Your task to perform on an android device: turn off location Image 0: 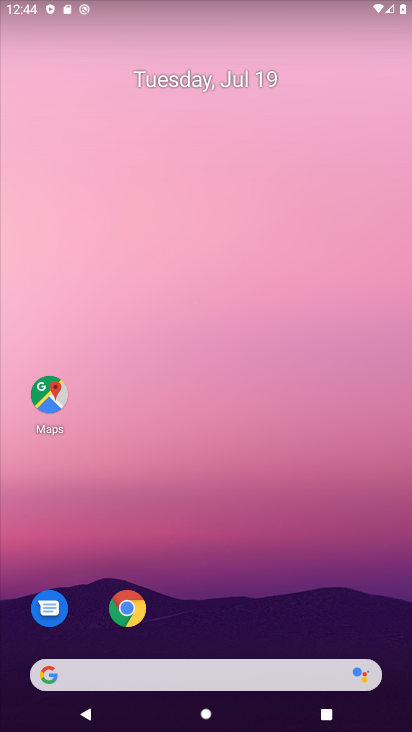
Step 0: drag from (290, 1) to (257, 8)
Your task to perform on an android device: turn off location Image 1: 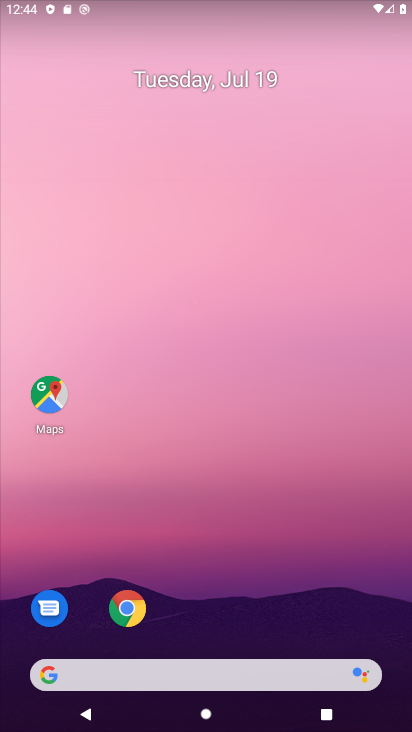
Step 1: drag from (270, 598) to (198, 3)
Your task to perform on an android device: turn off location Image 2: 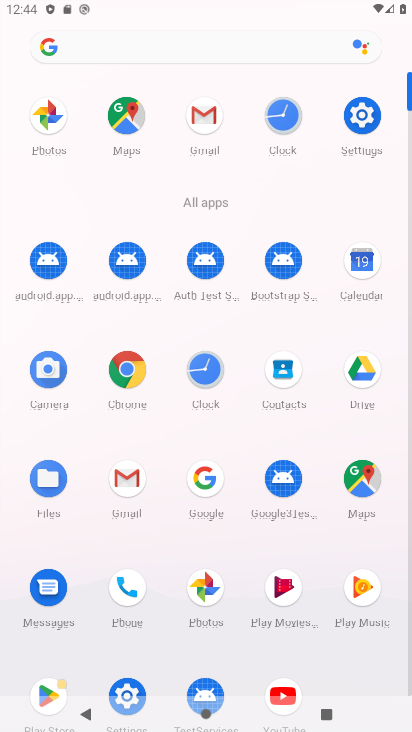
Step 2: click (356, 117)
Your task to perform on an android device: turn off location Image 3: 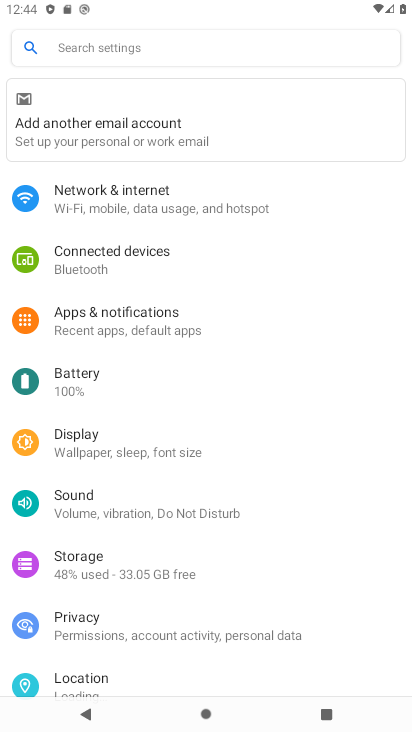
Step 3: drag from (154, 665) to (245, 177)
Your task to perform on an android device: turn off location Image 4: 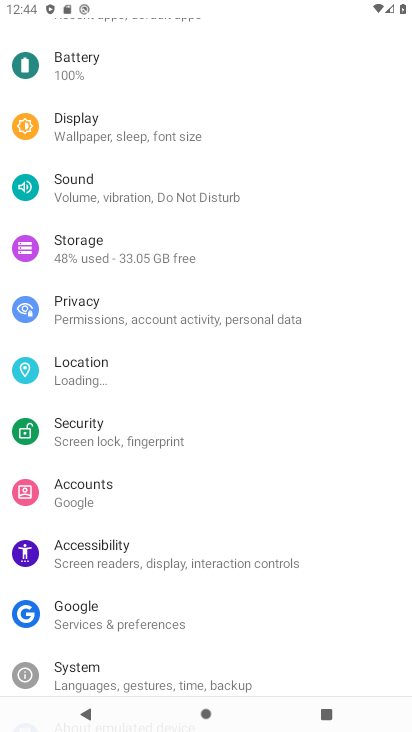
Step 4: click (77, 382)
Your task to perform on an android device: turn off location Image 5: 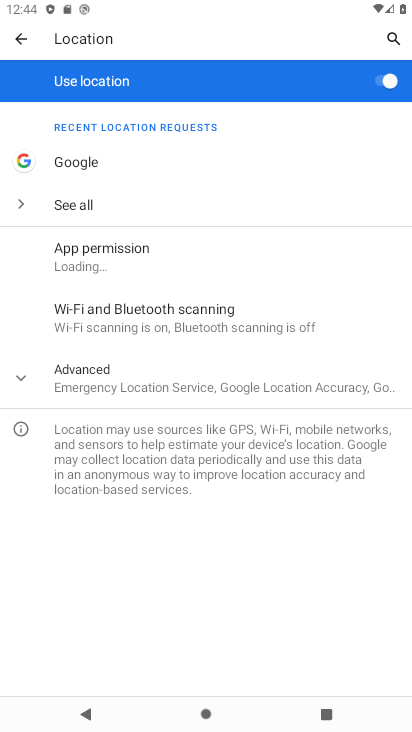
Step 5: click (377, 84)
Your task to perform on an android device: turn off location Image 6: 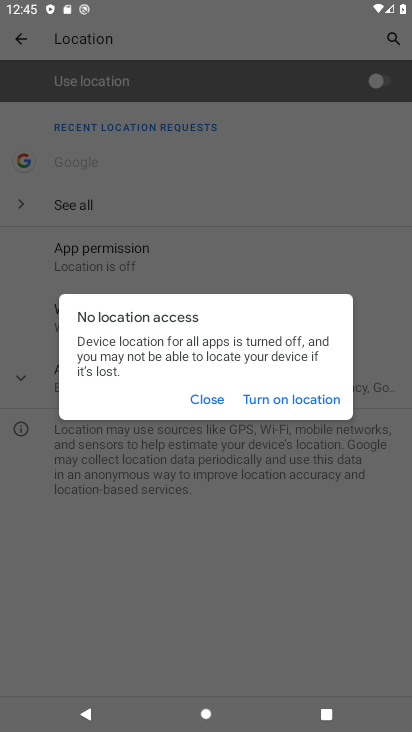
Step 6: task complete